Your task to perform on an android device: Open Reddit.com Image 0: 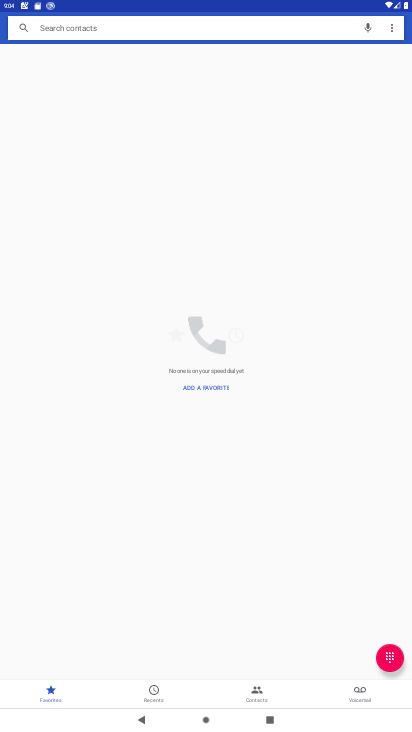
Step 0: press home button
Your task to perform on an android device: Open Reddit.com Image 1: 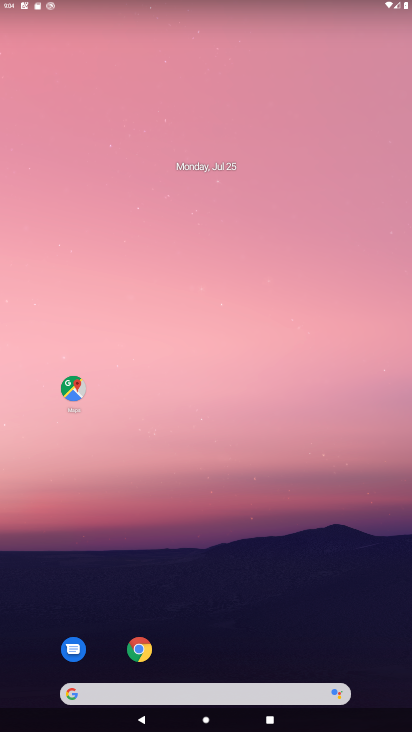
Step 1: click (143, 653)
Your task to perform on an android device: Open Reddit.com Image 2: 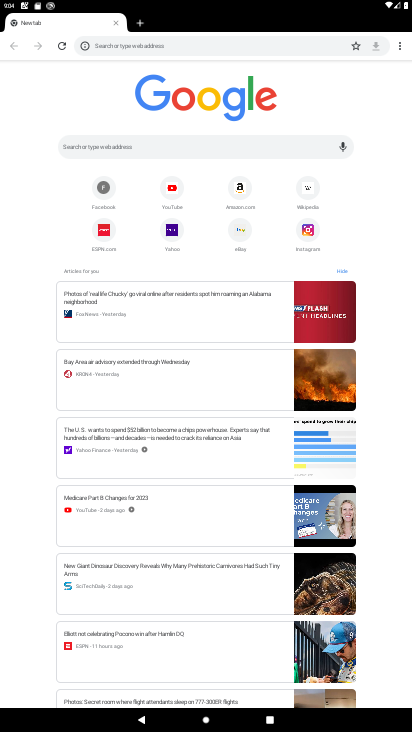
Step 2: click (197, 159)
Your task to perform on an android device: Open Reddit.com Image 3: 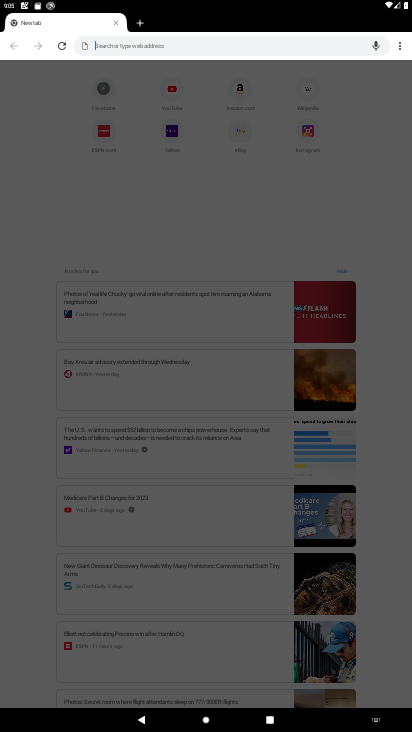
Step 3: type "Reddit.com"
Your task to perform on an android device: Open Reddit.com Image 4: 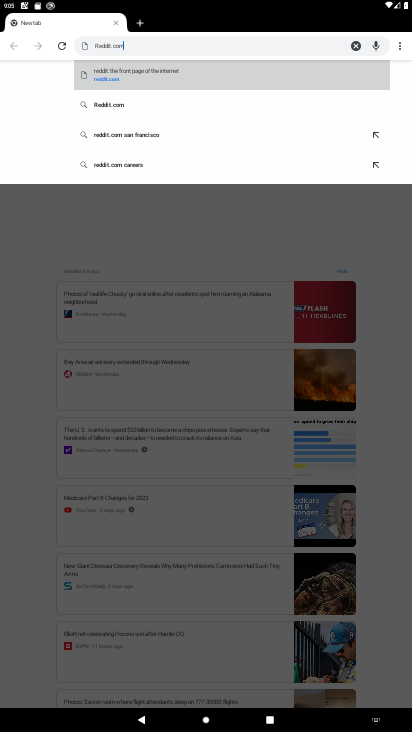
Step 4: click (151, 74)
Your task to perform on an android device: Open Reddit.com Image 5: 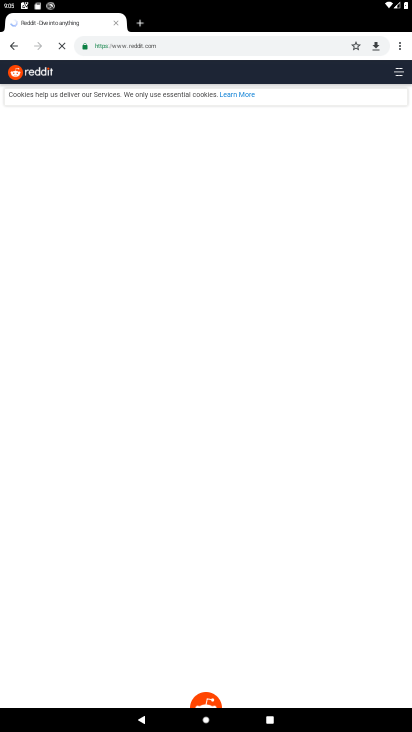
Step 5: task complete